Your task to perform on an android device: View the shopping cart on amazon.com. Add usb-c to the cart on amazon.com, then select checkout. Image 0: 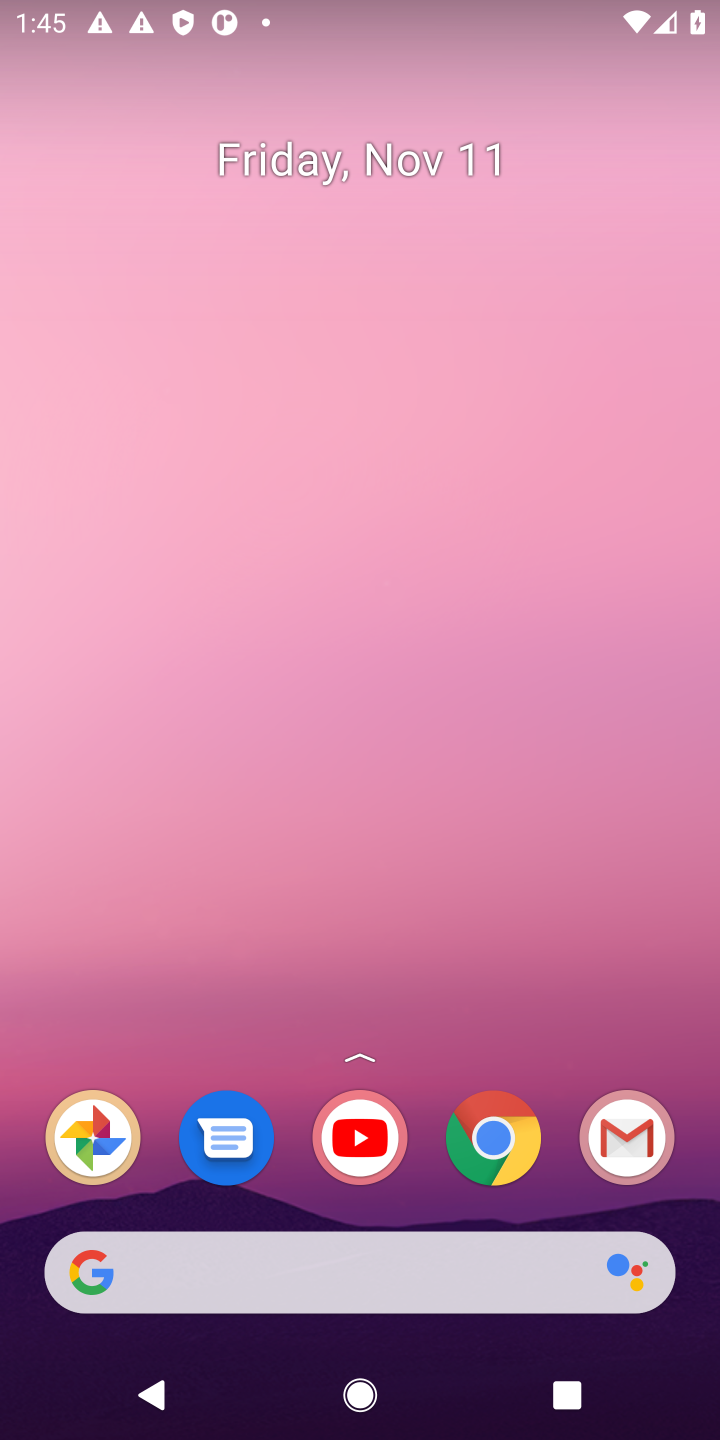
Step 0: click (492, 1144)
Your task to perform on an android device: View the shopping cart on amazon.com. Add usb-c to the cart on amazon.com, then select checkout. Image 1: 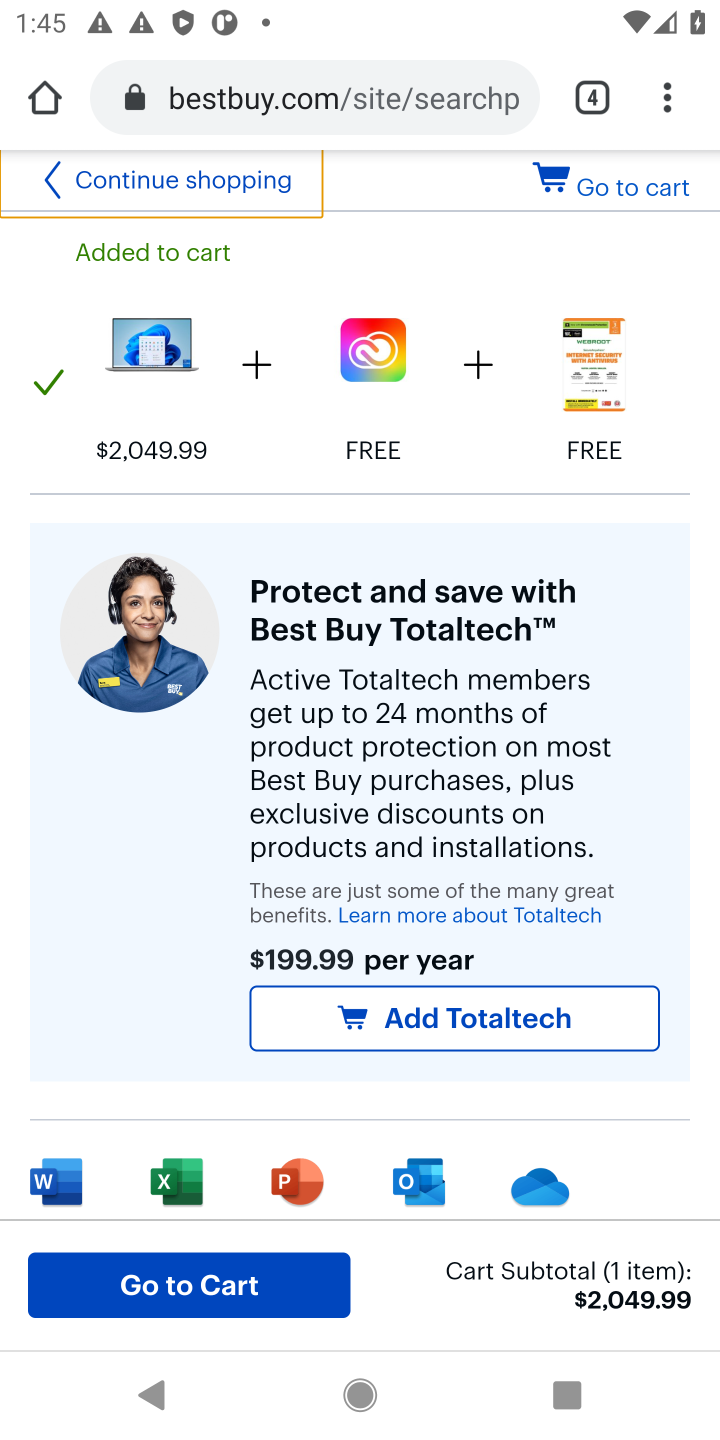
Step 1: click (593, 97)
Your task to perform on an android device: View the shopping cart on amazon.com. Add usb-c to the cart on amazon.com, then select checkout. Image 2: 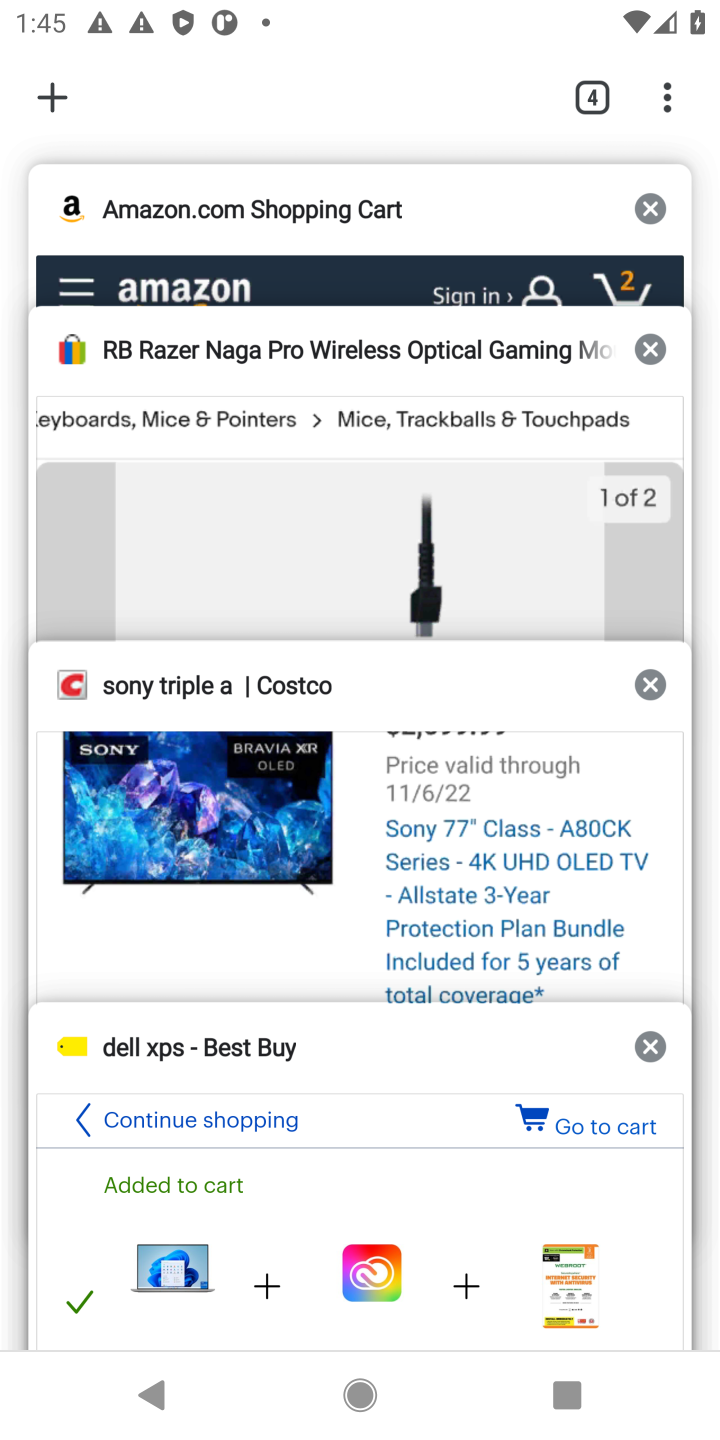
Step 2: click (397, 263)
Your task to perform on an android device: View the shopping cart on amazon.com. Add usb-c to the cart on amazon.com, then select checkout. Image 3: 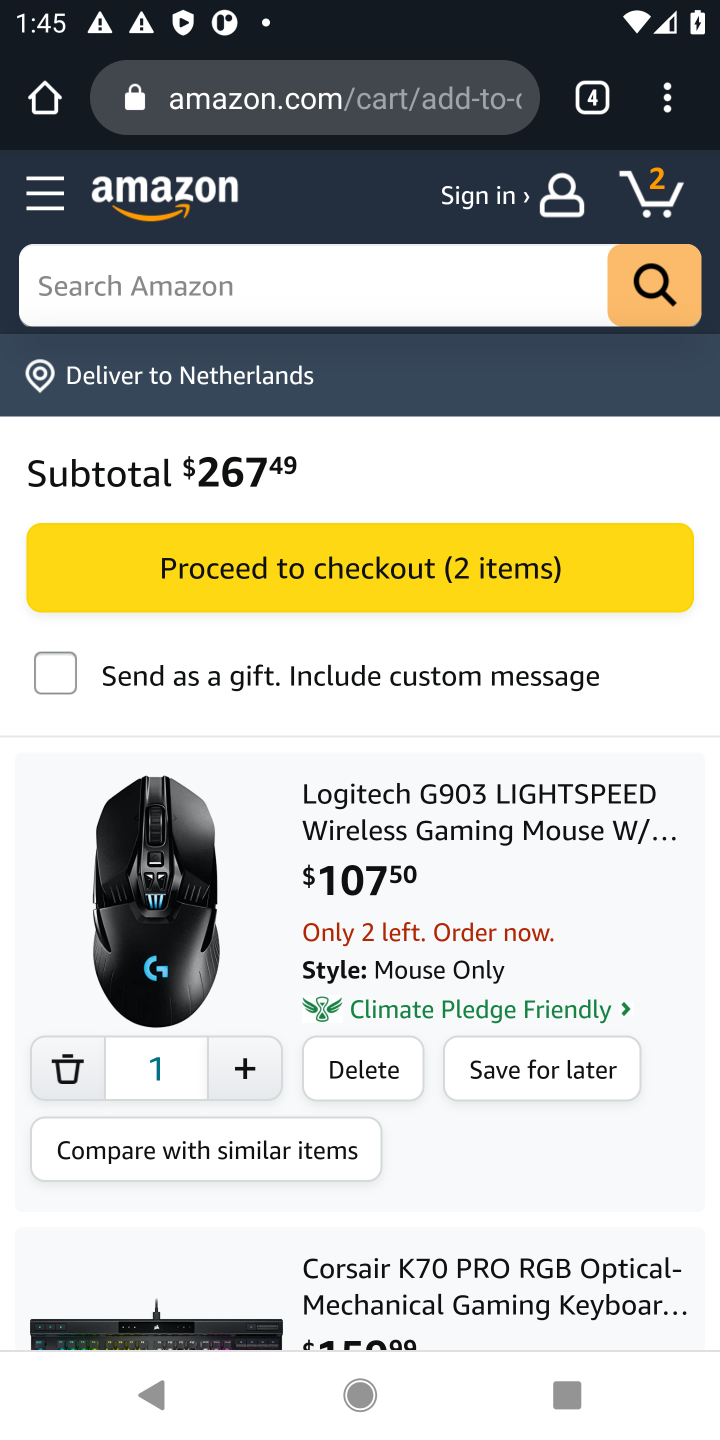
Step 3: click (359, 557)
Your task to perform on an android device: View the shopping cart on amazon.com. Add usb-c to the cart on amazon.com, then select checkout. Image 4: 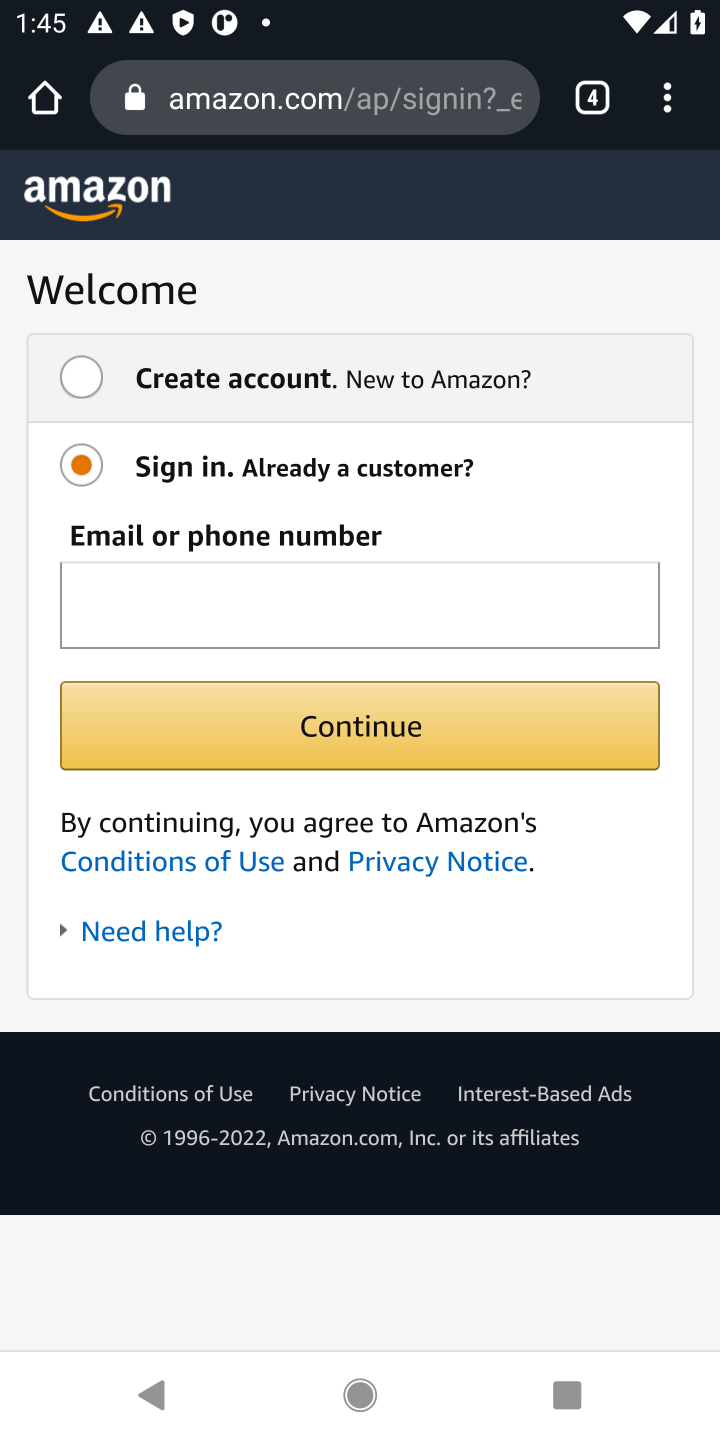
Step 4: task complete